Your task to perform on an android device: Open calendar and show me the second week of next month Image 0: 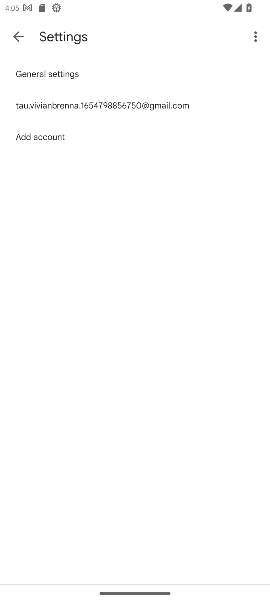
Step 0: press home button
Your task to perform on an android device: Open calendar and show me the second week of next month Image 1: 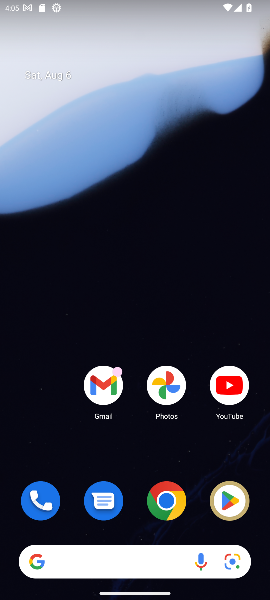
Step 1: drag from (0, 563) to (186, 55)
Your task to perform on an android device: Open calendar and show me the second week of next month Image 2: 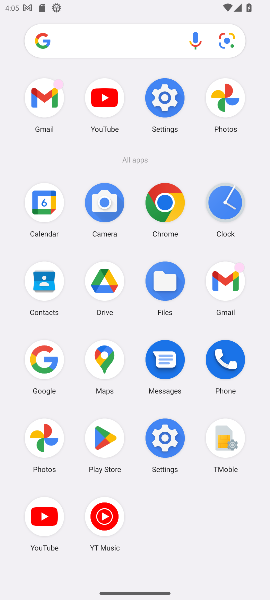
Step 2: click (44, 199)
Your task to perform on an android device: Open calendar and show me the second week of next month Image 3: 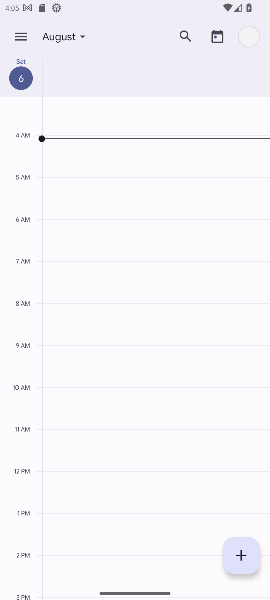
Step 3: click (65, 38)
Your task to perform on an android device: Open calendar and show me the second week of next month Image 4: 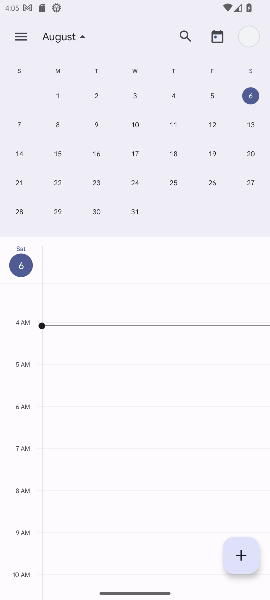
Step 4: drag from (232, 126) to (49, 126)
Your task to perform on an android device: Open calendar and show me the second week of next month Image 5: 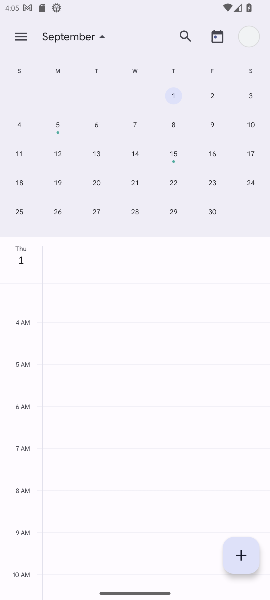
Step 5: click (22, 122)
Your task to perform on an android device: Open calendar and show me the second week of next month Image 6: 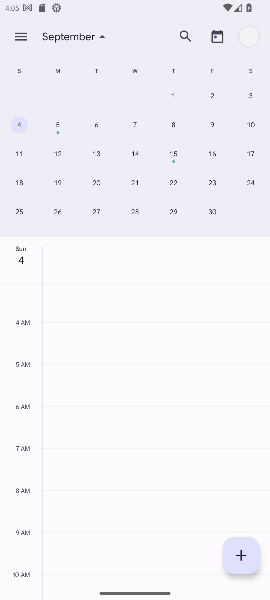
Step 6: task complete